Your task to perform on an android device: Open Youtube and go to the subscriptions tab Image 0: 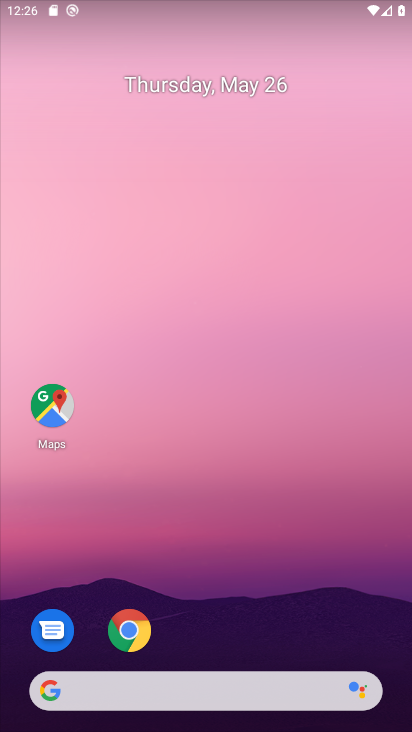
Step 0: press home button
Your task to perform on an android device: Open Youtube and go to the subscriptions tab Image 1: 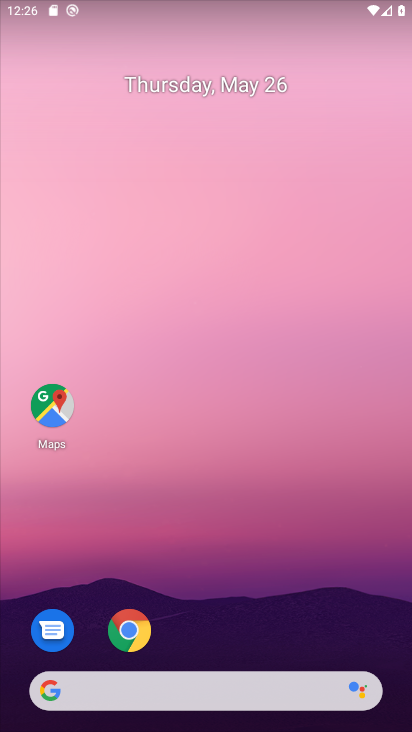
Step 1: drag from (210, 652) to (255, 15)
Your task to perform on an android device: Open Youtube and go to the subscriptions tab Image 2: 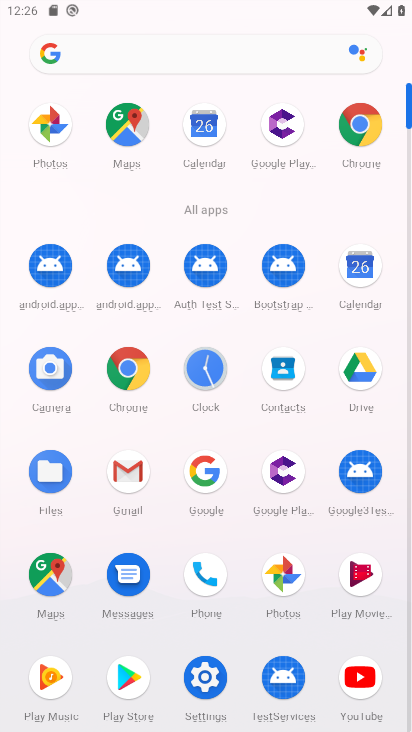
Step 2: click (358, 673)
Your task to perform on an android device: Open Youtube and go to the subscriptions tab Image 3: 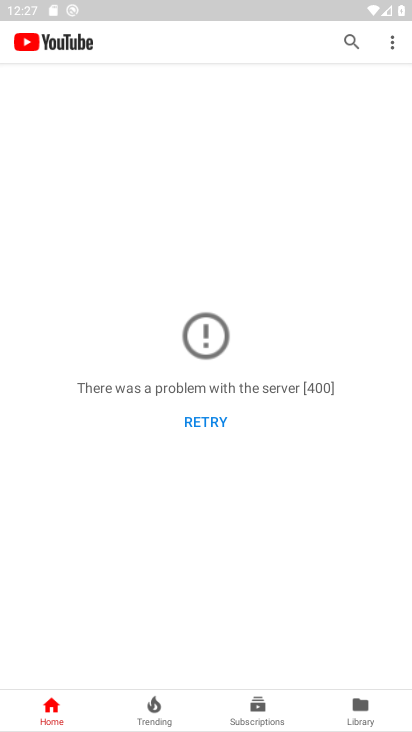
Step 3: click (255, 701)
Your task to perform on an android device: Open Youtube and go to the subscriptions tab Image 4: 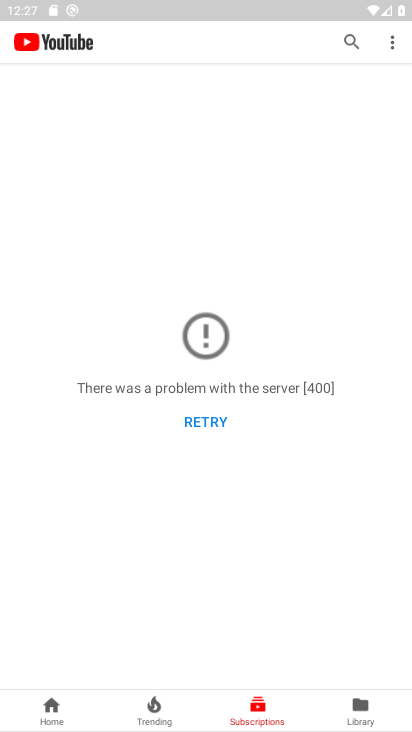
Step 4: task complete